Your task to perform on an android device: Go to Android settings Image 0: 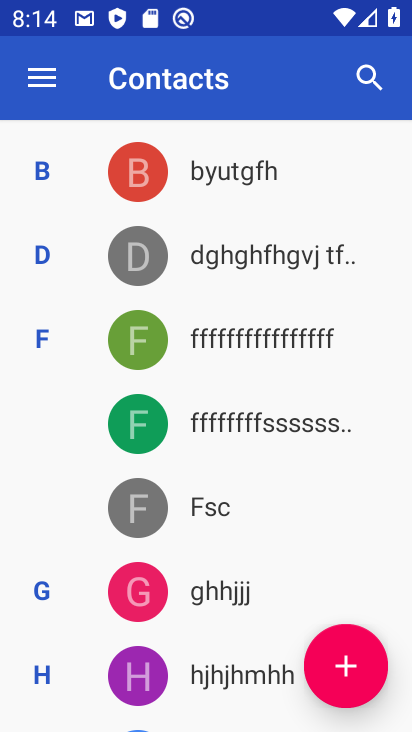
Step 0: press back button
Your task to perform on an android device: Go to Android settings Image 1: 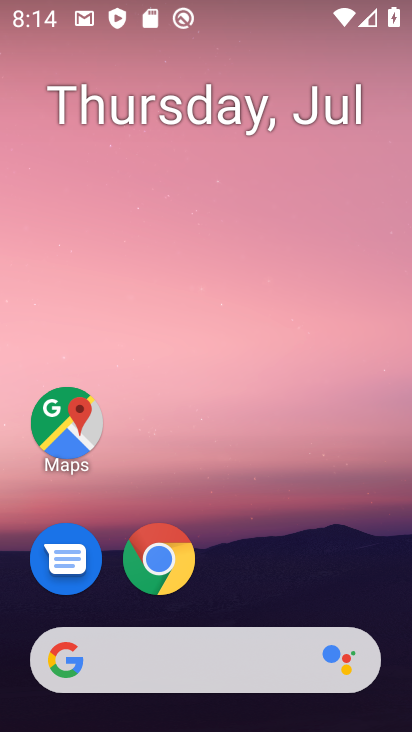
Step 1: drag from (280, 592) to (370, 44)
Your task to perform on an android device: Go to Android settings Image 2: 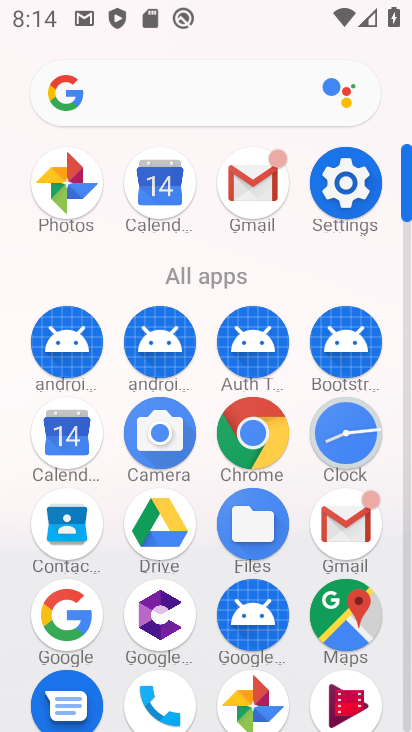
Step 2: click (353, 164)
Your task to perform on an android device: Go to Android settings Image 3: 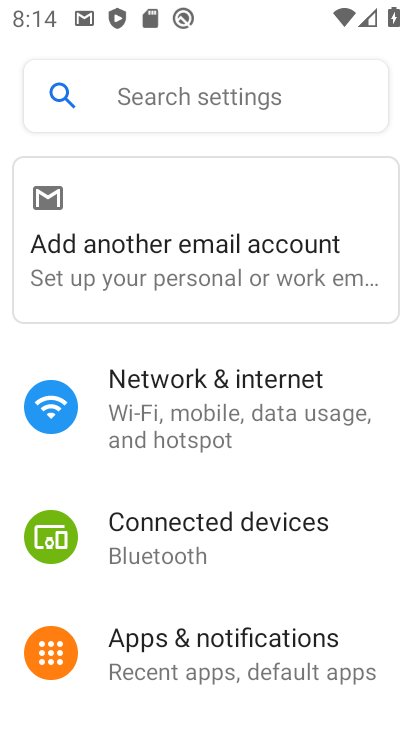
Step 3: drag from (165, 636) to (265, 12)
Your task to perform on an android device: Go to Android settings Image 4: 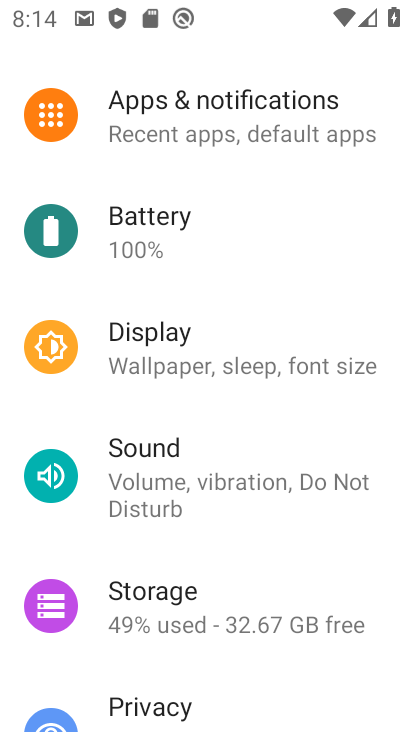
Step 4: drag from (174, 640) to (308, 19)
Your task to perform on an android device: Go to Android settings Image 5: 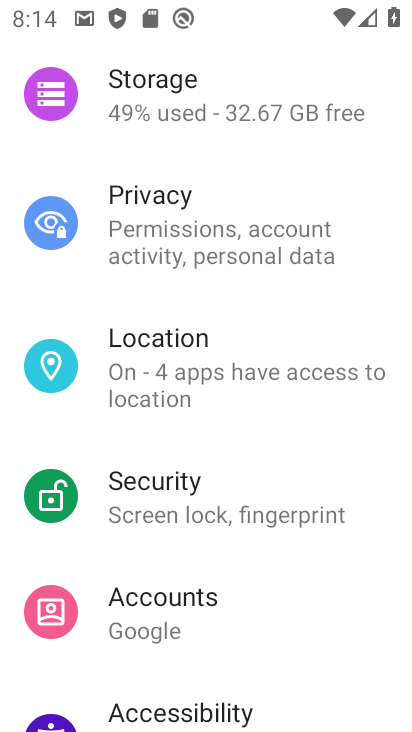
Step 5: drag from (155, 687) to (280, 0)
Your task to perform on an android device: Go to Android settings Image 6: 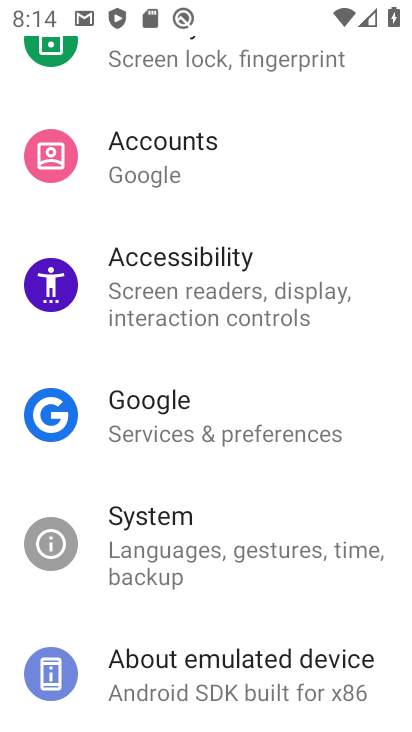
Step 6: drag from (176, 652) to (241, 15)
Your task to perform on an android device: Go to Android settings Image 7: 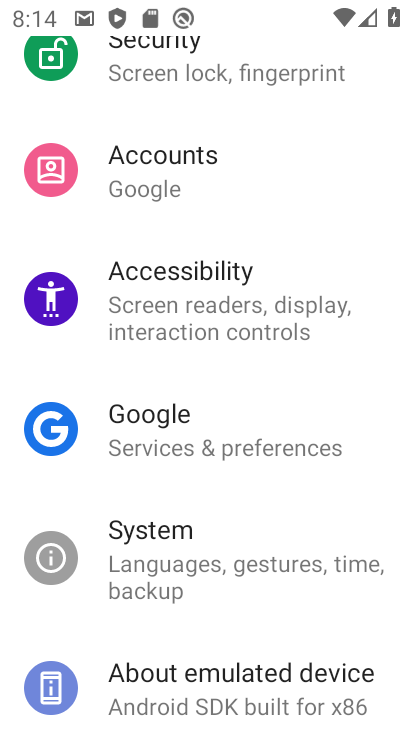
Step 7: click (144, 705)
Your task to perform on an android device: Go to Android settings Image 8: 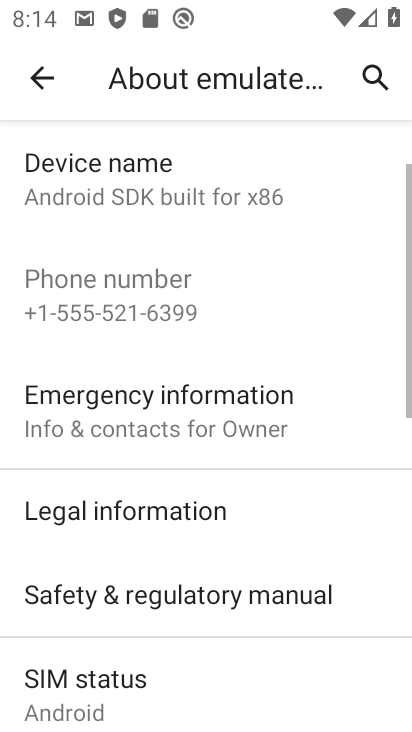
Step 8: drag from (142, 706) to (253, 77)
Your task to perform on an android device: Go to Android settings Image 9: 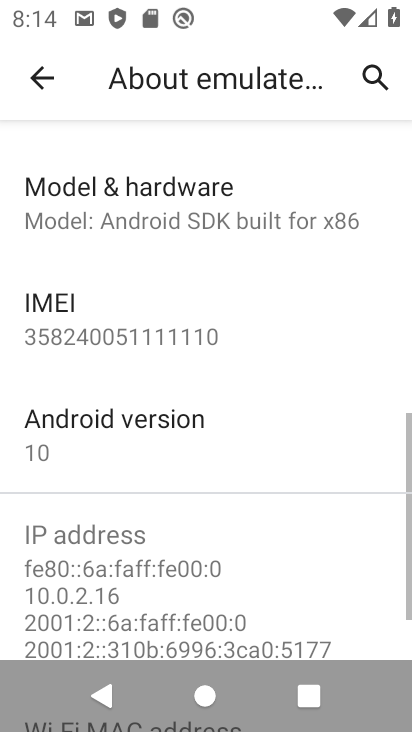
Step 9: click (160, 484)
Your task to perform on an android device: Go to Android settings Image 10: 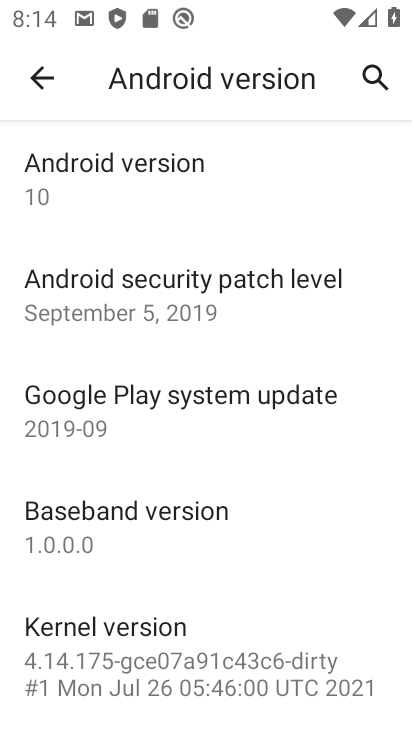
Step 10: task complete